Your task to perform on an android device: star an email in the gmail app Image 0: 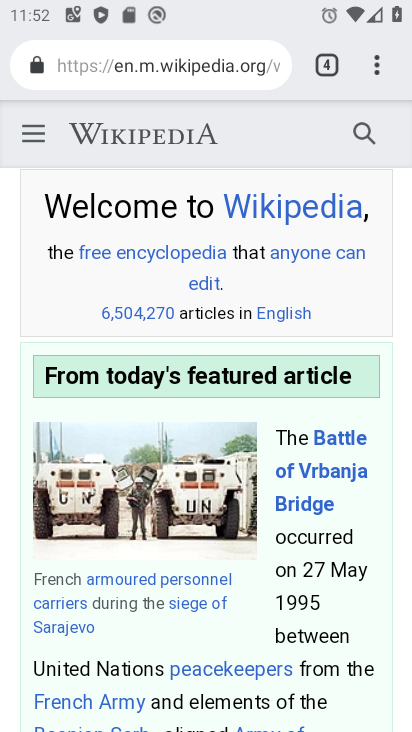
Step 0: press home button
Your task to perform on an android device: star an email in the gmail app Image 1: 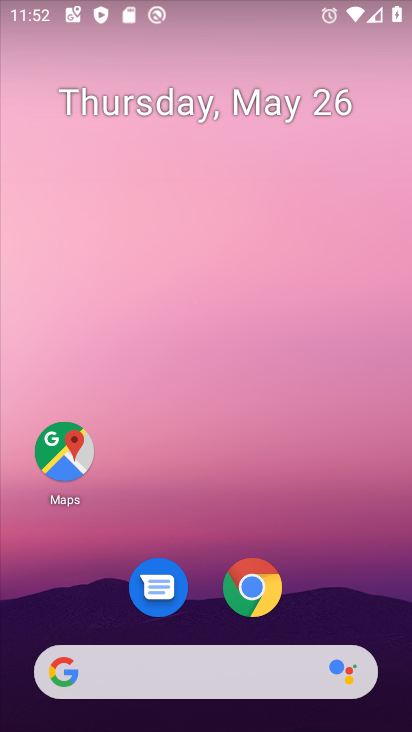
Step 1: drag from (211, 690) to (342, 84)
Your task to perform on an android device: star an email in the gmail app Image 2: 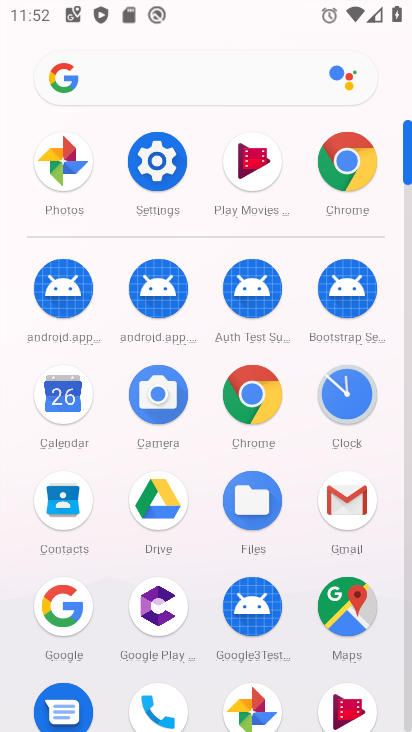
Step 2: click (337, 502)
Your task to perform on an android device: star an email in the gmail app Image 3: 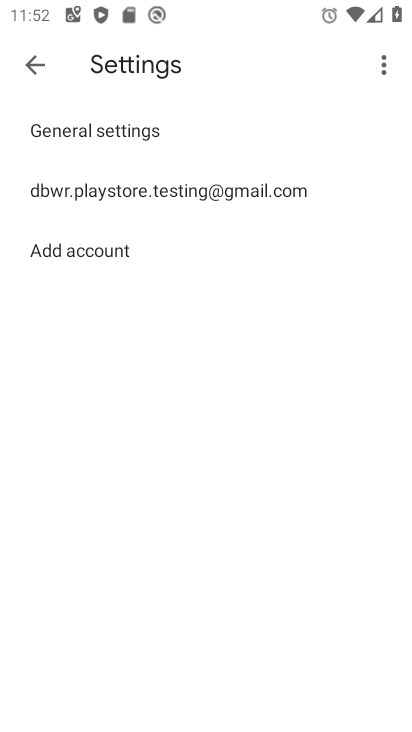
Step 3: click (51, 62)
Your task to perform on an android device: star an email in the gmail app Image 4: 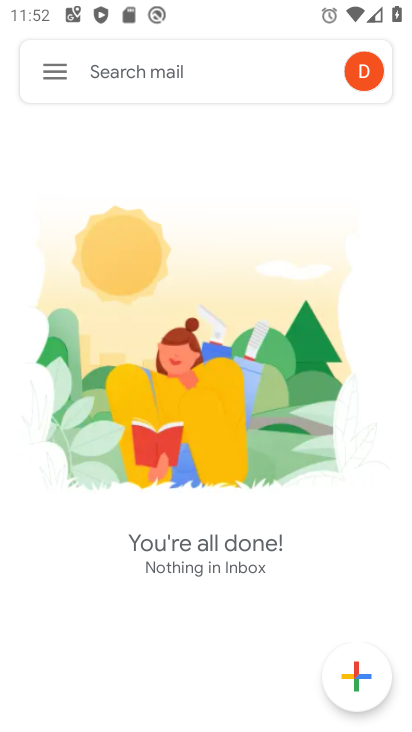
Step 4: click (49, 66)
Your task to perform on an android device: star an email in the gmail app Image 5: 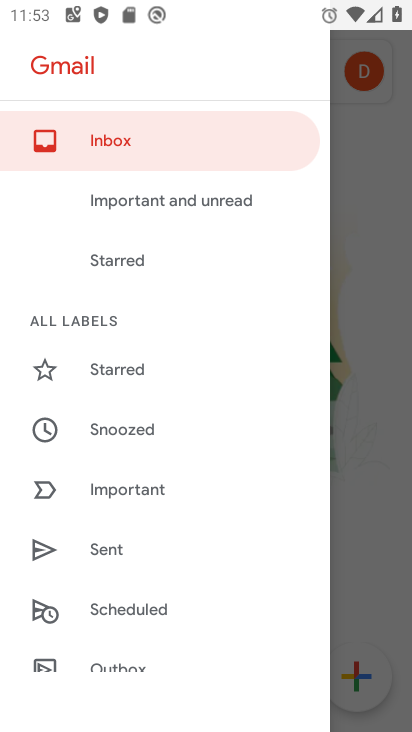
Step 5: click (100, 261)
Your task to perform on an android device: star an email in the gmail app Image 6: 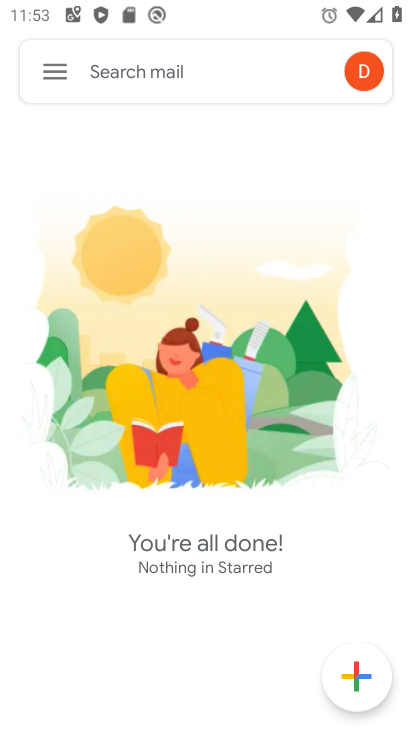
Step 6: click (69, 69)
Your task to perform on an android device: star an email in the gmail app Image 7: 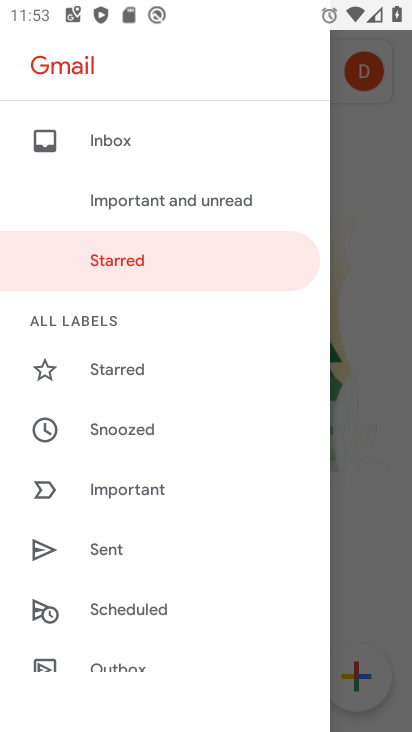
Step 7: click (150, 260)
Your task to perform on an android device: star an email in the gmail app Image 8: 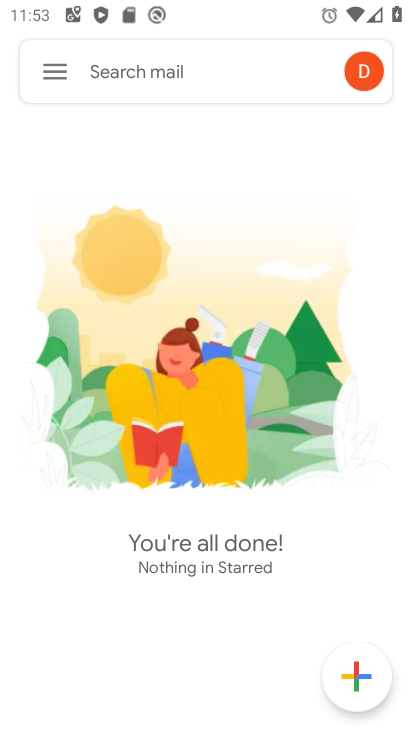
Step 8: task complete